Your task to perform on an android device: refresh tabs in the chrome app Image 0: 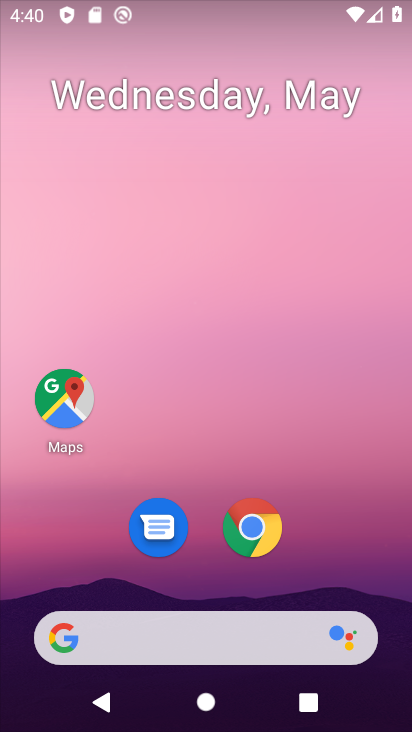
Step 0: drag from (296, 556) to (266, 3)
Your task to perform on an android device: refresh tabs in the chrome app Image 1: 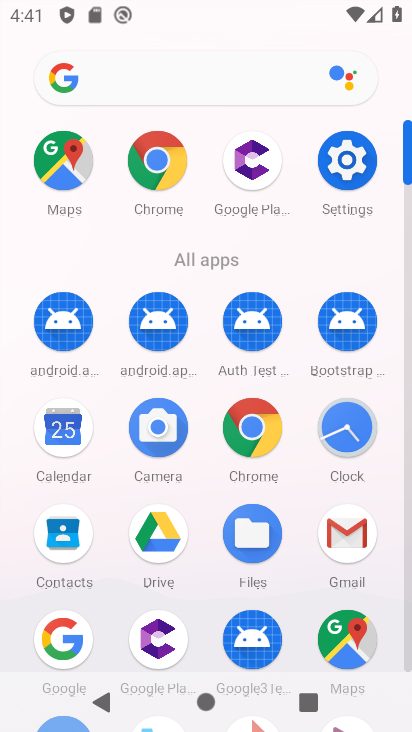
Step 1: click (170, 203)
Your task to perform on an android device: refresh tabs in the chrome app Image 2: 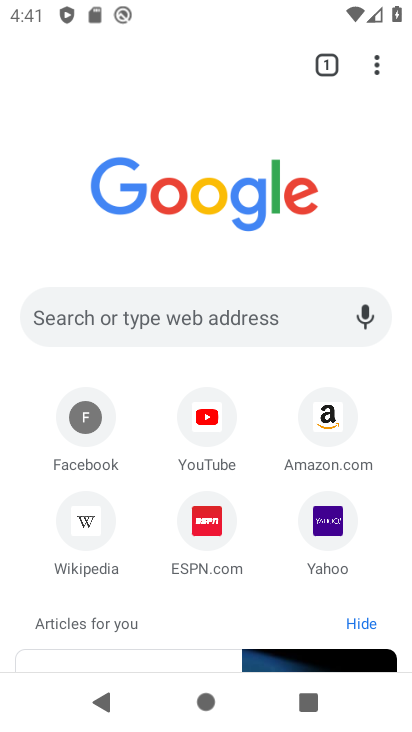
Step 2: click (326, 69)
Your task to perform on an android device: refresh tabs in the chrome app Image 3: 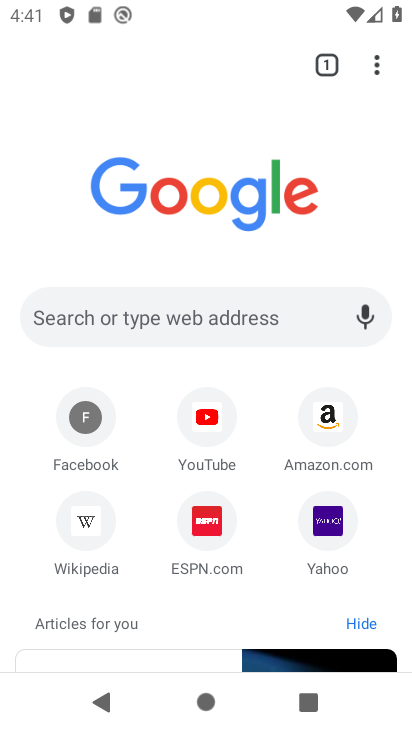
Step 3: click (379, 73)
Your task to perform on an android device: refresh tabs in the chrome app Image 4: 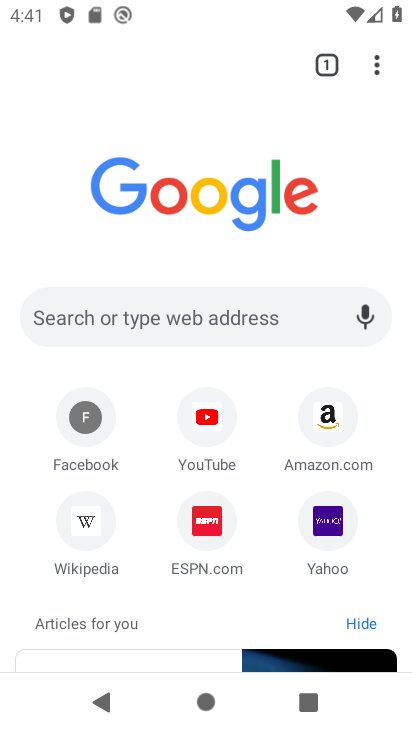
Step 4: click (379, 72)
Your task to perform on an android device: refresh tabs in the chrome app Image 5: 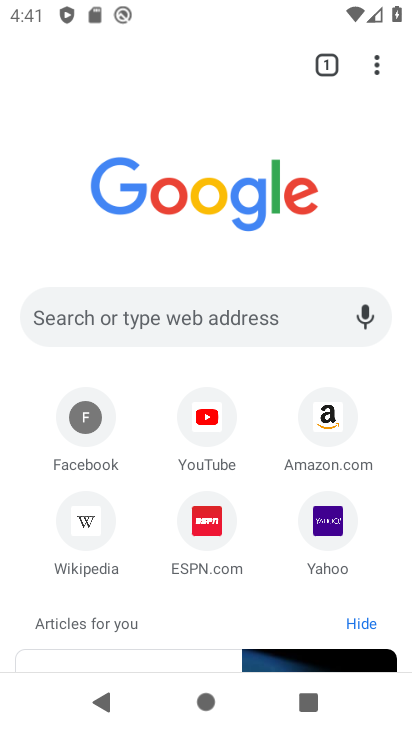
Step 5: click (372, 66)
Your task to perform on an android device: refresh tabs in the chrome app Image 6: 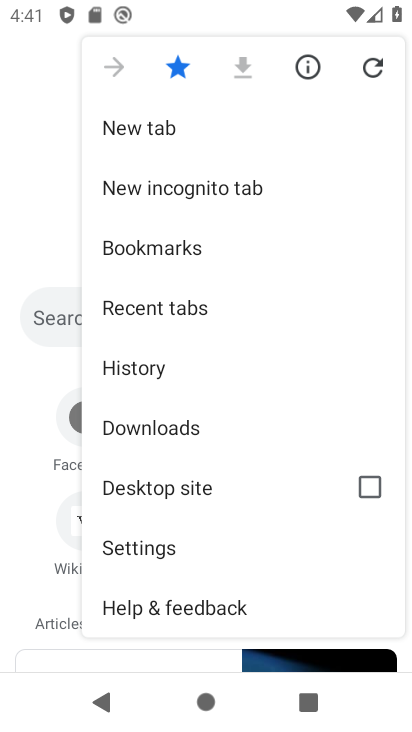
Step 6: click (372, 66)
Your task to perform on an android device: refresh tabs in the chrome app Image 7: 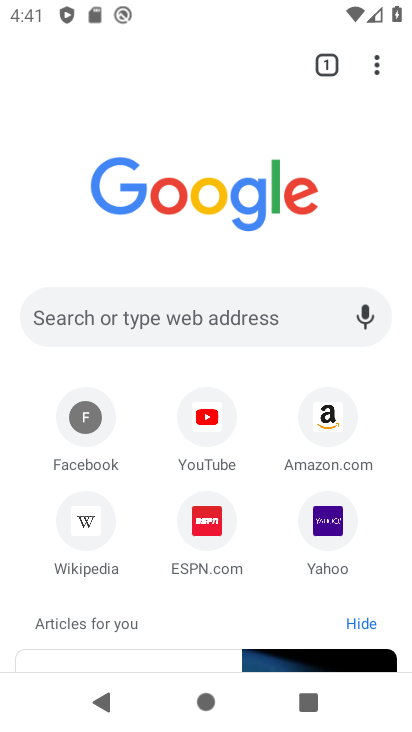
Step 7: task complete